Your task to perform on an android device: show emergency info Image 0: 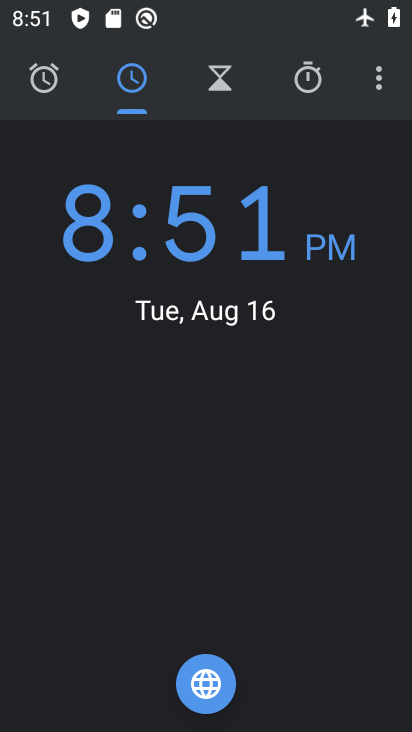
Step 0: press home button
Your task to perform on an android device: show emergency info Image 1: 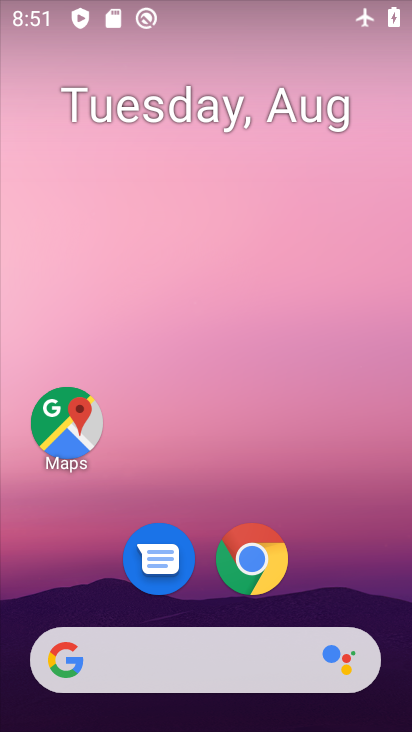
Step 1: drag from (304, 559) to (289, 45)
Your task to perform on an android device: show emergency info Image 2: 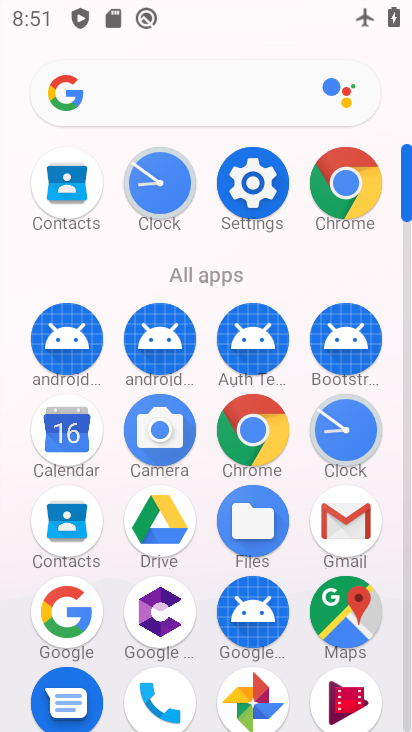
Step 2: click (240, 171)
Your task to perform on an android device: show emergency info Image 3: 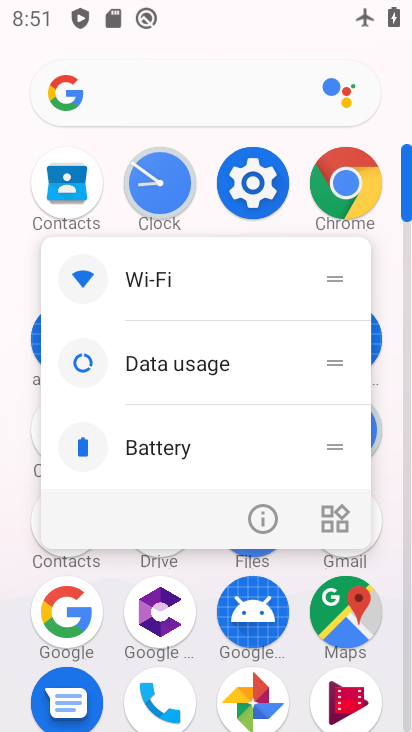
Step 3: click (259, 186)
Your task to perform on an android device: show emergency info Image 4: 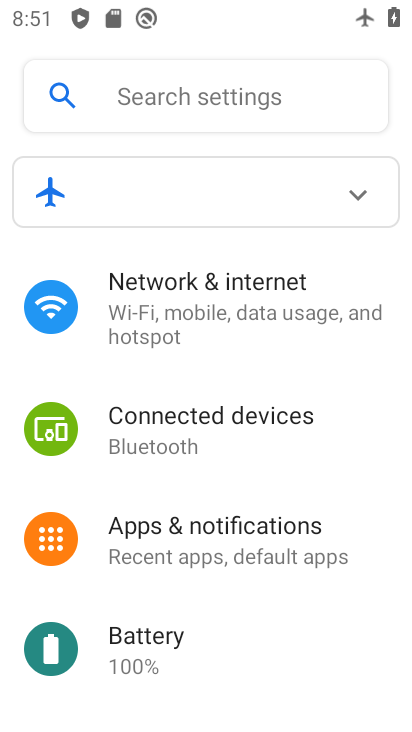
Step 4: drag from (216, 478) to (216, 3)
Your task to perform on an android device: show emergency info Image 5: 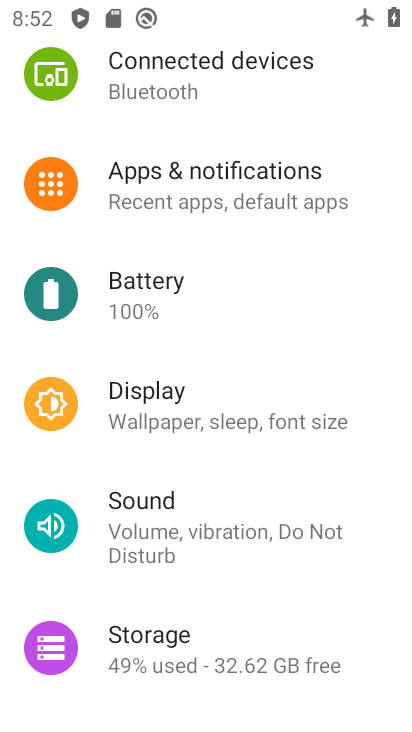
Step 5: drag from (212, 649) to (233, 87)
Your task to perform on an android device: show emergency info Image 6: 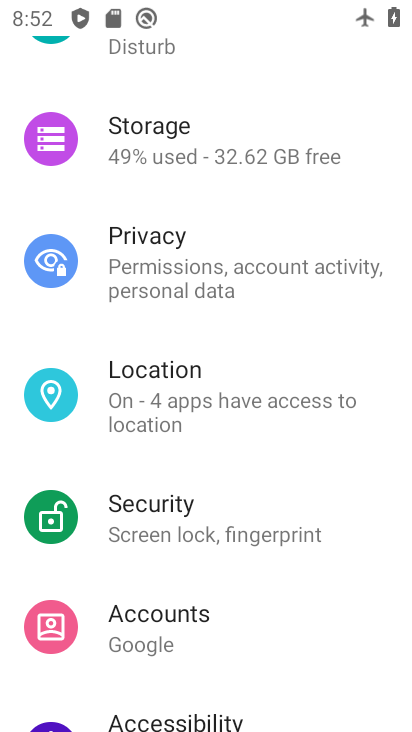
Step 6: drag from (229, 633) to (235, 25)
Your task to perform on an android device: show emergency info Image 7: 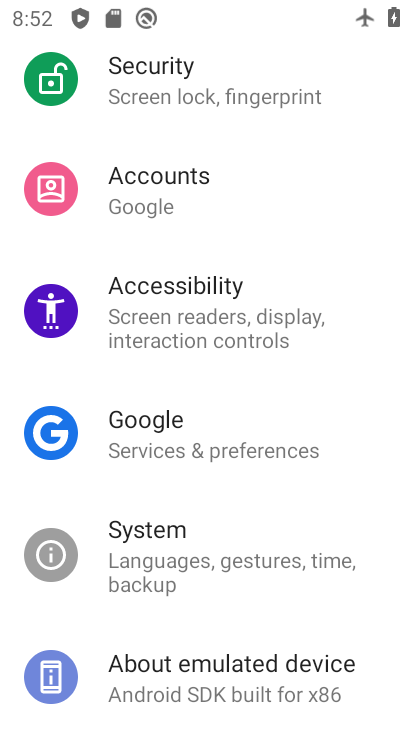
Step 7: click (203, 683)
Your task to perform on an android device: show emergency info Image 8: 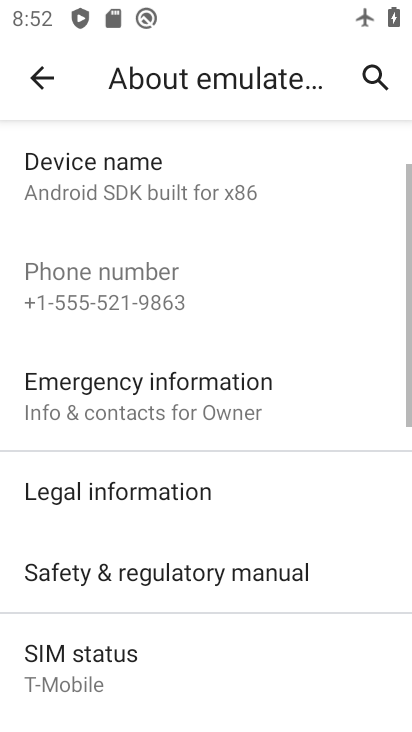
Step 8: drag from (191, 637) to (210, 223)
Your task to perform on an android device: show emergency info Image 9: 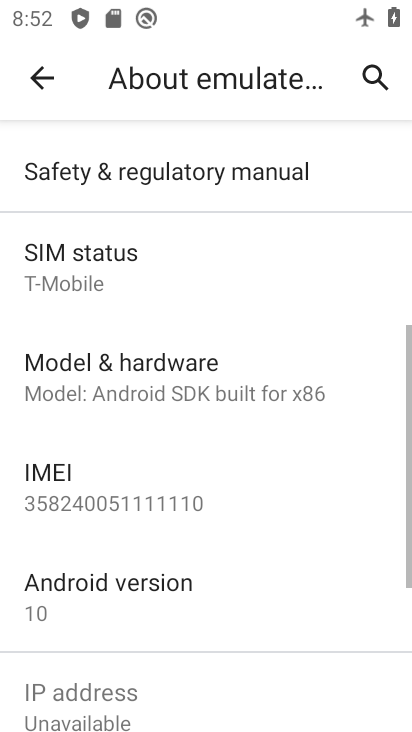
Step 9: click (158, 643)
Your task to perform on an android device: show emergency info Image 10: 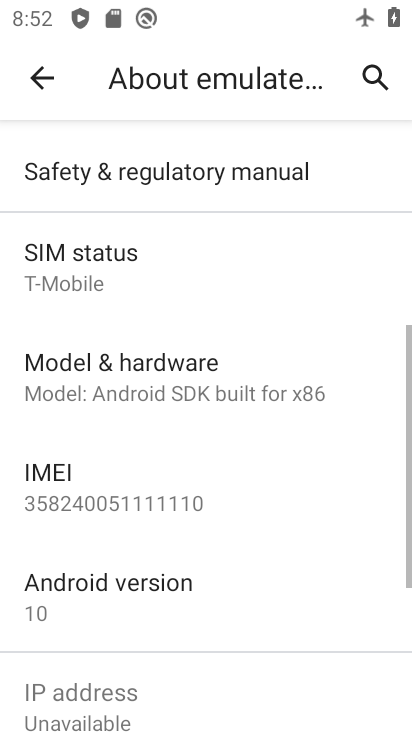
Step 10: drag from (186, 252) to (186, 663)
Your task to perform on an android device: show emergency info Image 11: 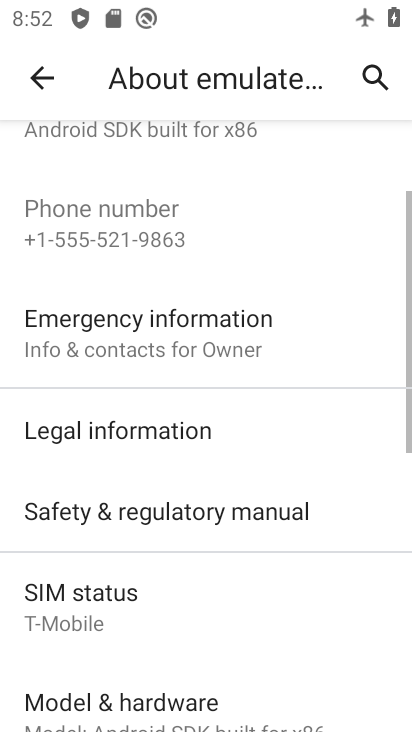
Step 11: click (206, 328)
Your task to perform on an android device: show emergency info Image 12: 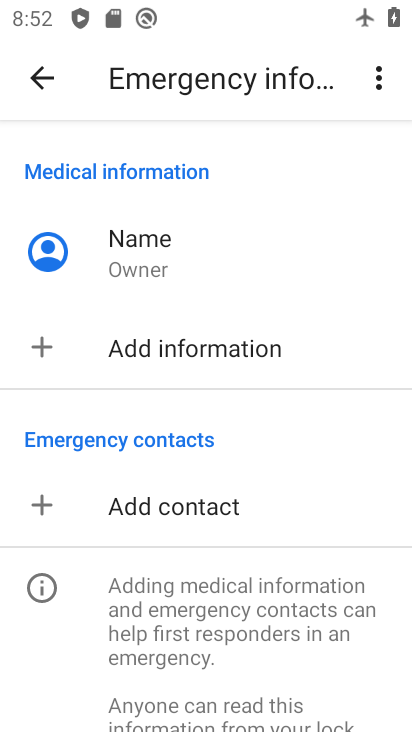
Step 12: task complete